Your task to perform on an android device: Go to settings Image 0: 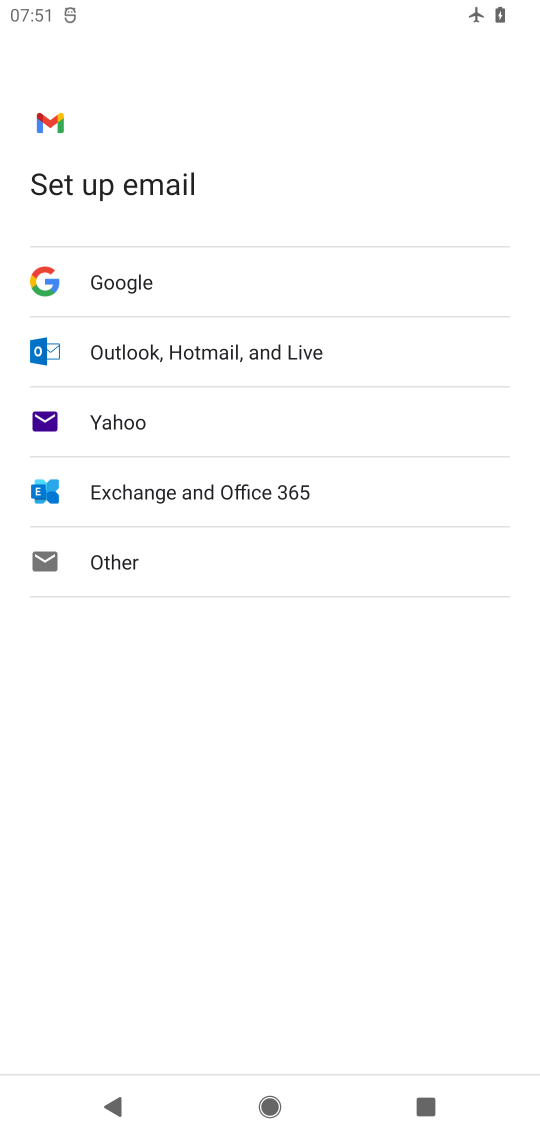
Step 0: press home button
Your task to perform on an android device: Go to settings Image 1: 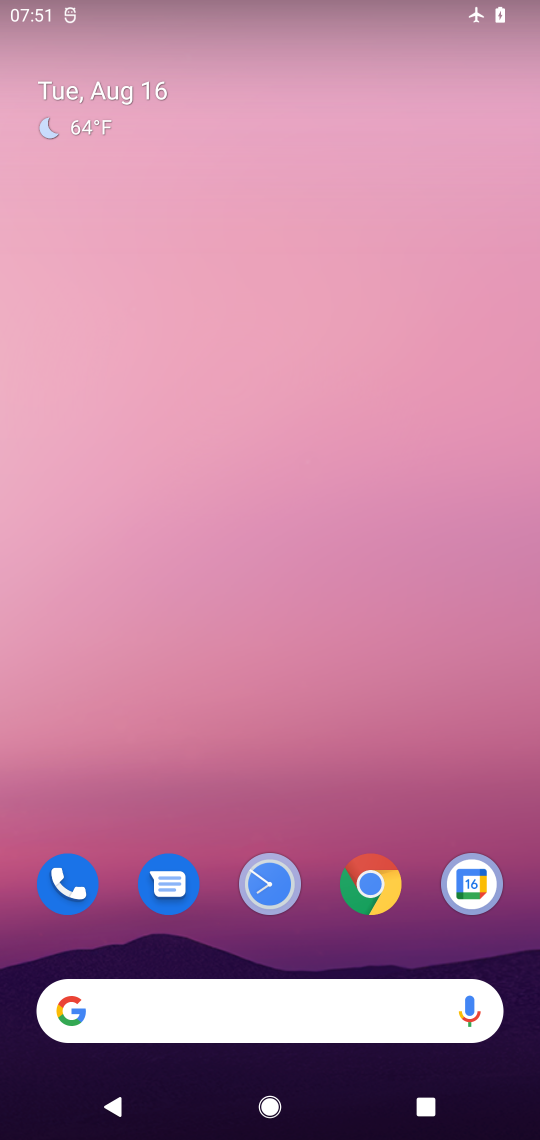
Step 1: drag from (339, 521) to (340, 143)
Your task to perform on an android device: Go to settings Image 2: 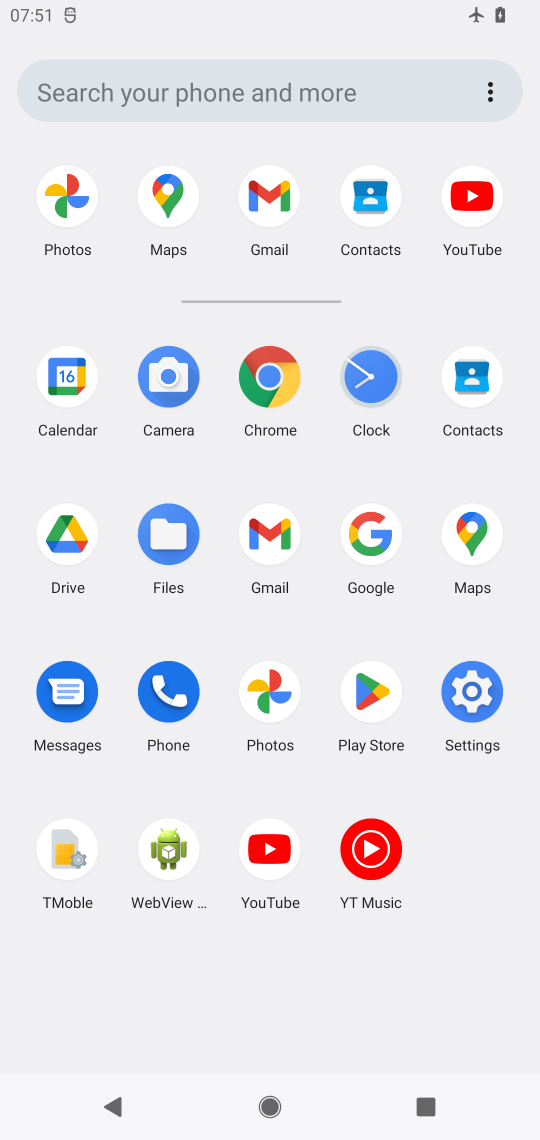
Step 2: click (481, 694)
Your task to perform on an android device: Go to settings Image 3: 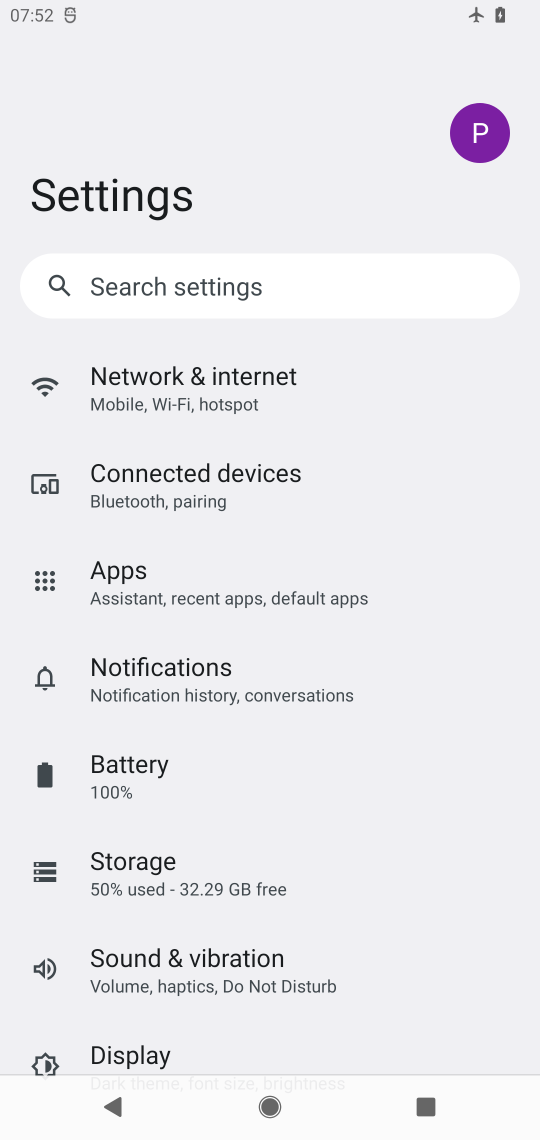
Step 3: task complete